Your task to perform on an android device: Open Google Image 0: 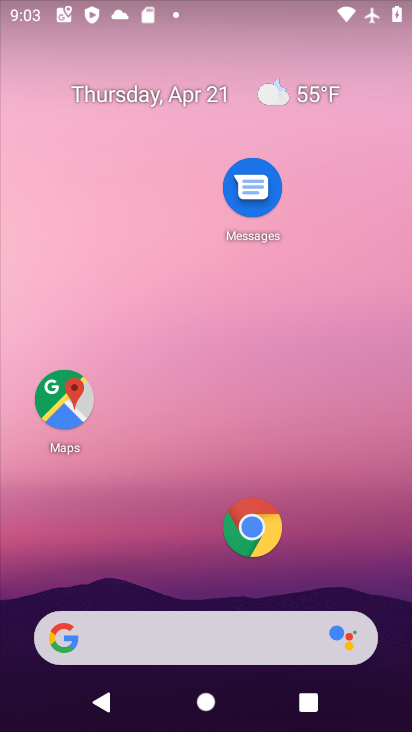
Step 0: drag from (157, 642) to (283, 64)
Your task to perform on an android device: Open Google Image 1: 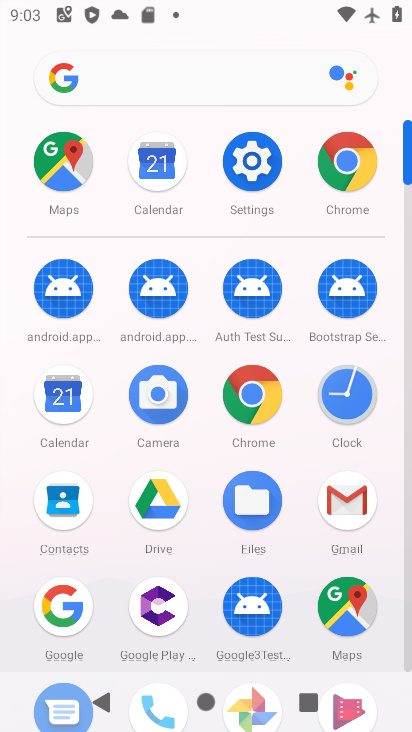
Step 1: click (56, 607)
Your task to perform on an android device: Open Google Image 2: 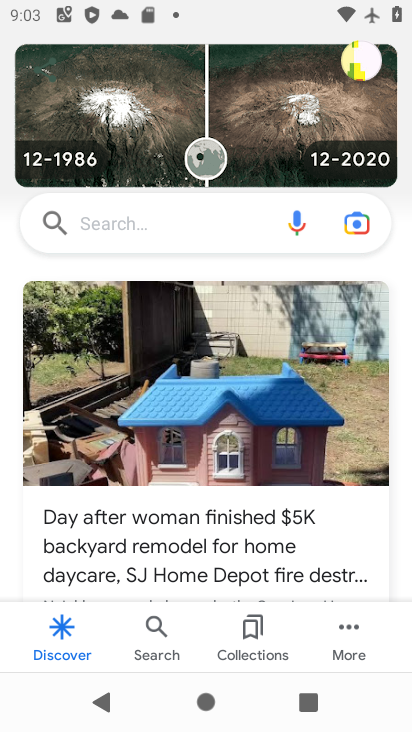
Step 2: task complete